Your task to perform on an android device: delete a single message in the gmail app Image 0: 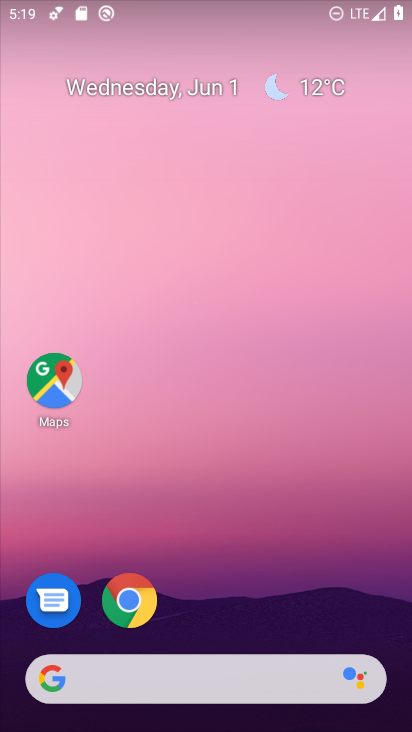
Step 0: drag from (380, 626) to (330, 67)
Your task to perform on an android device: delete a single message in the gmail app Image 1: 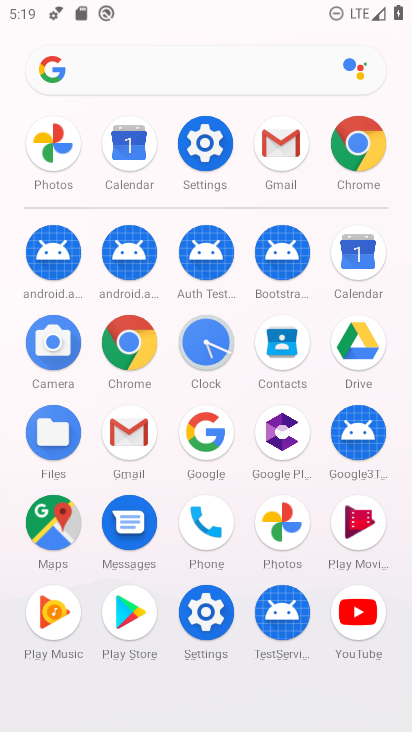
Step 1: click (127, 434)
Your task to perform on an android device: delete a single message in the gmail app Image 2: 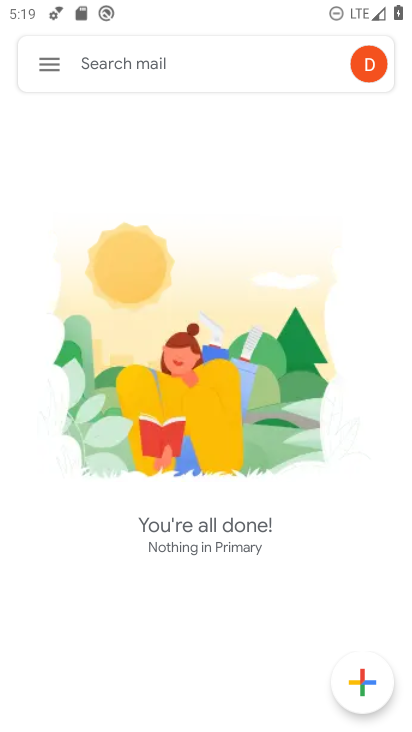
Step 2: click (52, 68)
Your task to perform on an android device: delete a single message in the gmail app Image 3: 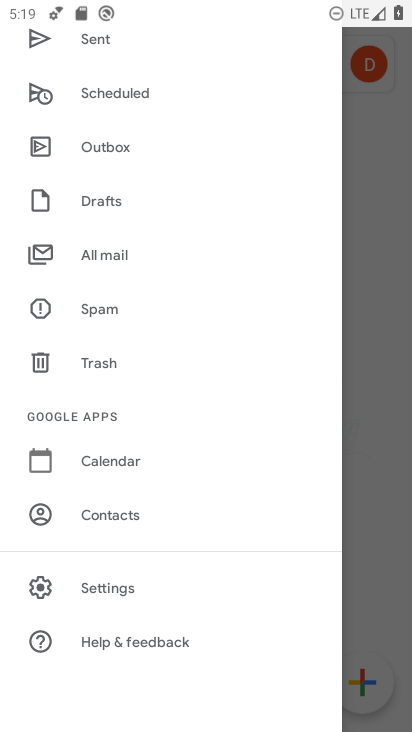
Step 3: click (113, 248)
Your task to perform on an android device: delete a single message in the gmail app Image 4: 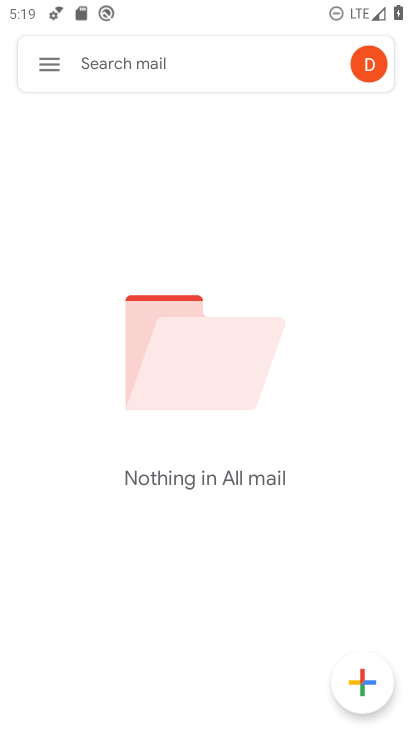
Step 4: task complete